Your task to perform on an android device: show emergency info Image 0: 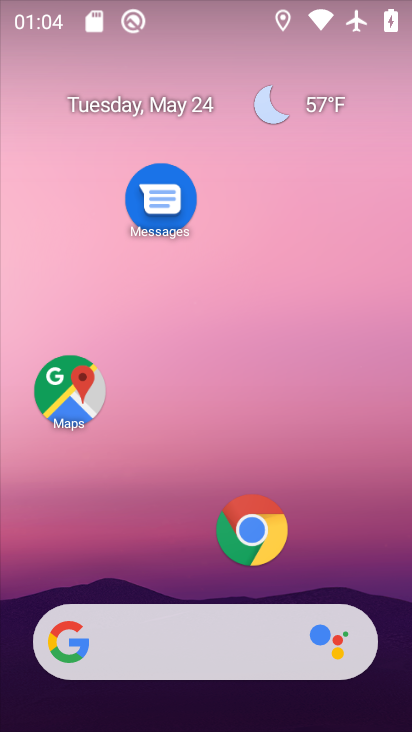
Step 0: drag from (155, 556) to (154, 0)
Your task to perform on an android device: show emergency info Image 1: 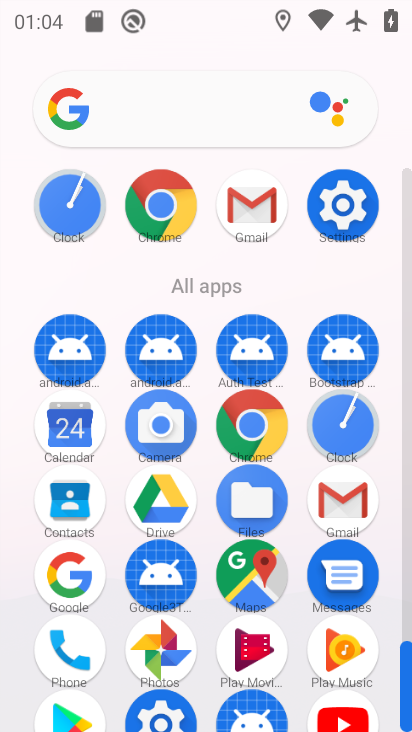
Step 1: click (348, 199)
Your task to perform on an android device: show emergency info Image 2: 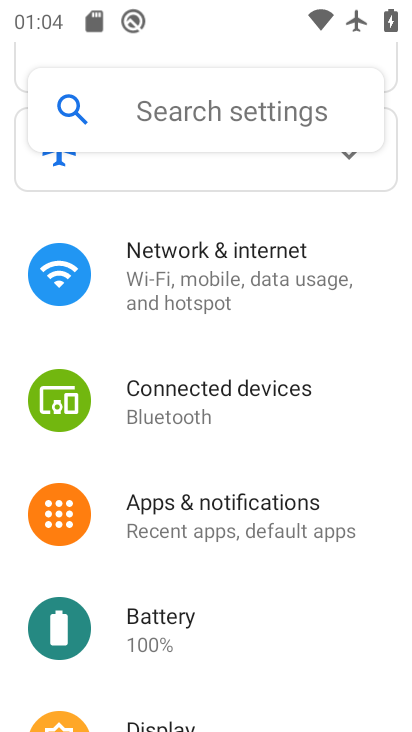
Step 2: drag from (211, 667) to (213, 200)
Your task to perform on an android device: show emergency info Image 3: 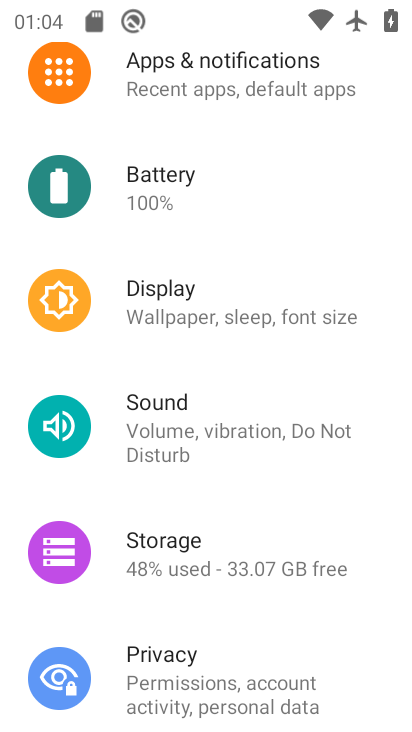
Step 3: drag from (238, 520) to (227, 137)
Your task to perform on an android device: show emergency info Image 4: 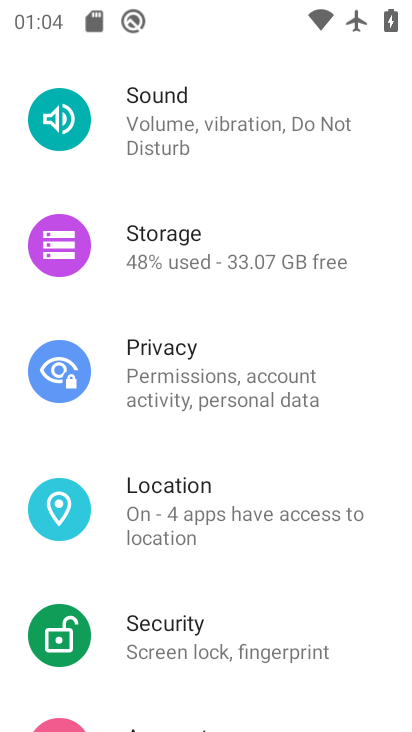
Step 4: drag from (172, 650) to (170, 271)
Your task to perform on an android device: show emergency info Image 5: 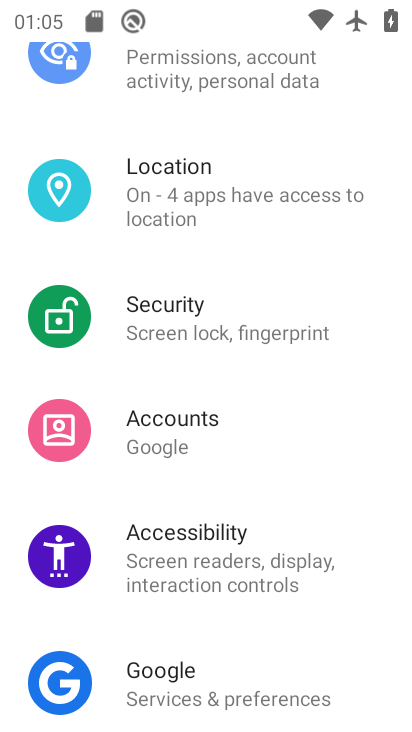
Step 5: drag from (197, 619) to (196, 261)
Your task to perform on an android device: show emergency info Image 6: 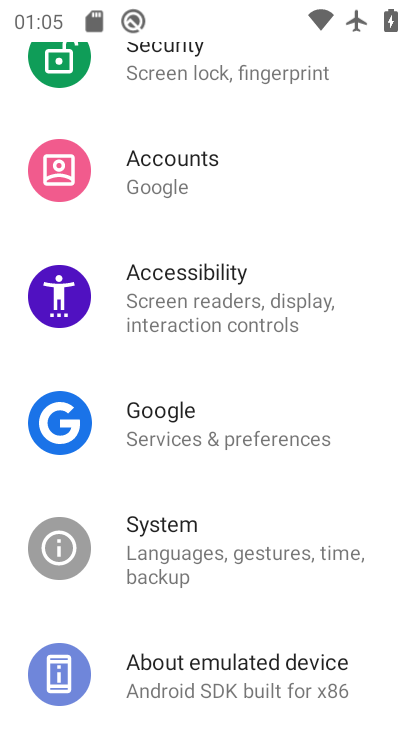
Step 6: click (186, 667)
Your task to perform on an android device: show emergency info Image 7: 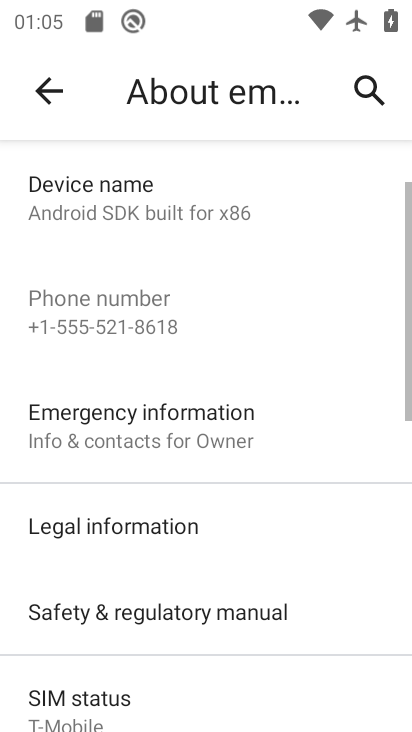
Step 7: click (131, 442)
Your task to perform on an android device: show emergency info Image 8: 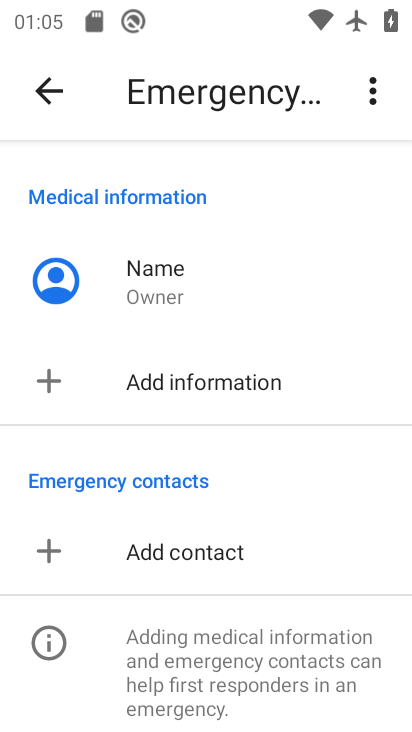
Step 8: task complete